Your task to perform on an android device: turn off location Image 0: 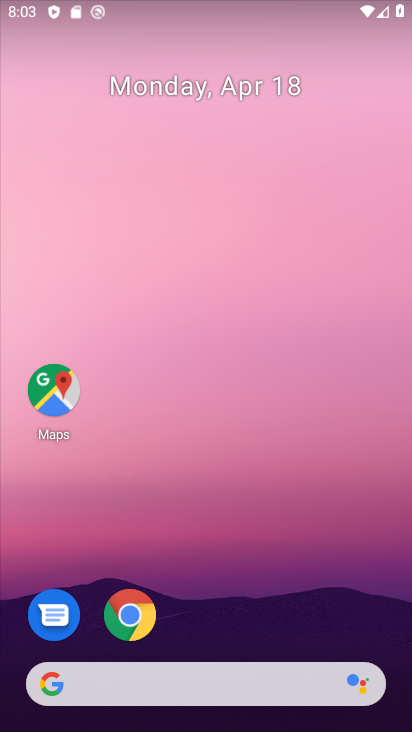
Step 0: drag from (311, 501) to (343, 69)
Your task to perform on an android device: turn off location Image 1: 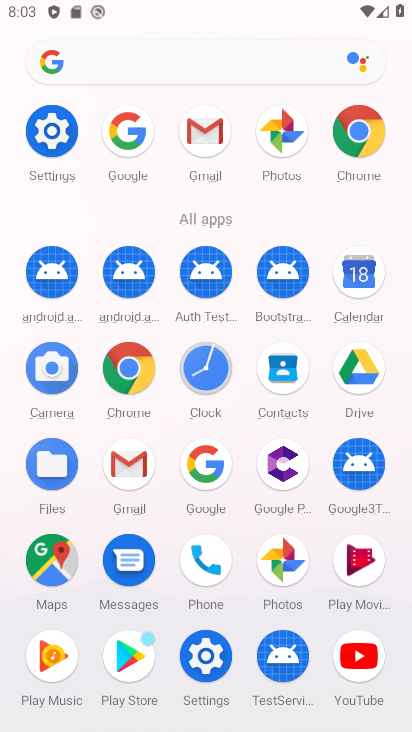
Step 1: click (53, 118)
Your task to perform on an android device: turn off location Image 2: 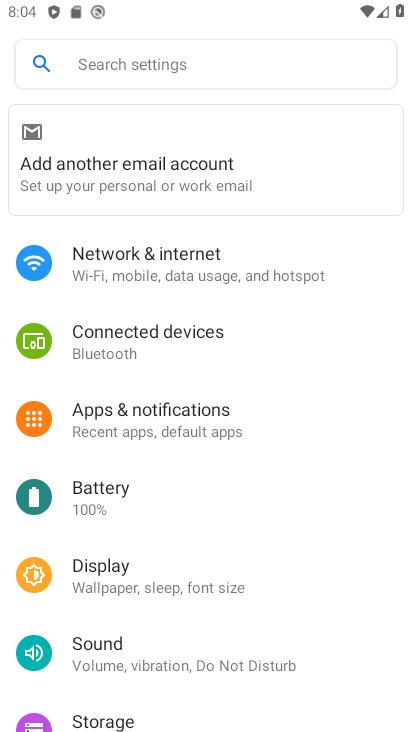
Step 2: drag from (200, 624) to (281, 243)
Your task to perform on an android device: turn off location Image 3: 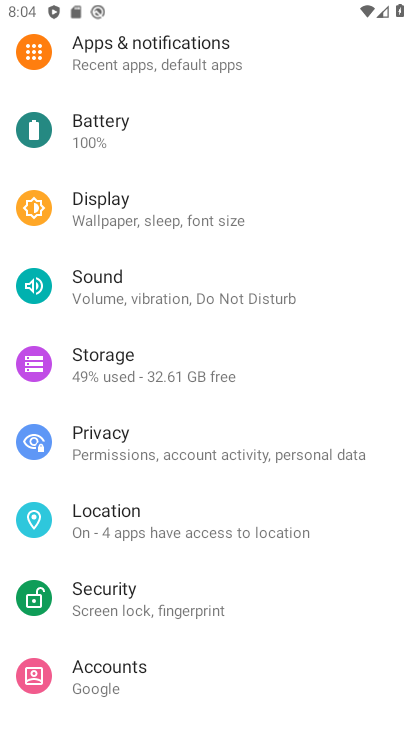
Step 3: click (175, 524)
Your task to perform on an android device: turn off location Image 4: 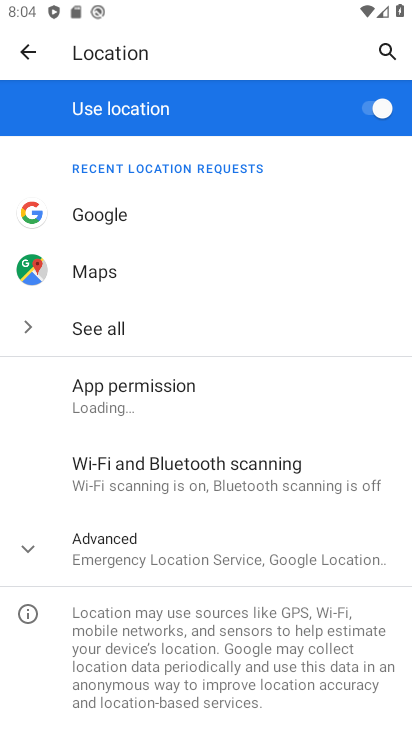
Step 4: click (363, 104)
Your task to perform on an android device: turn off location Image 5: 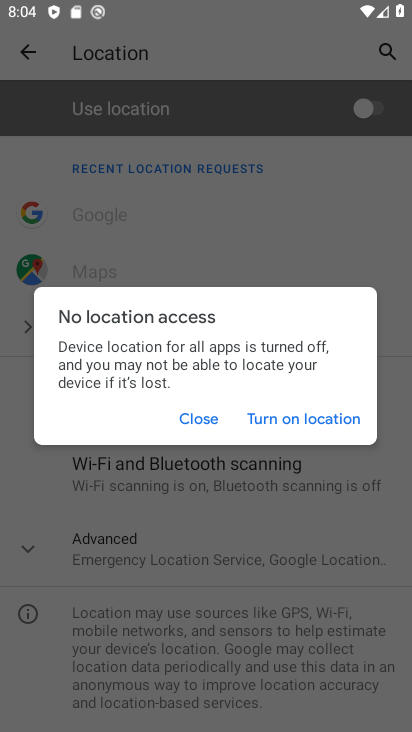
Step 5: click (200, 417)
Your task to perform on an android device: turn off location Image 6: 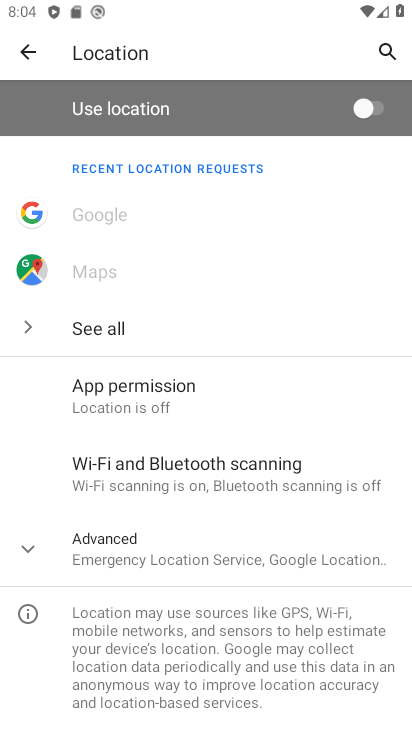
Step 6: task complete